Your task to perform on an android device: add a label to a message in the gmail app Image 0: 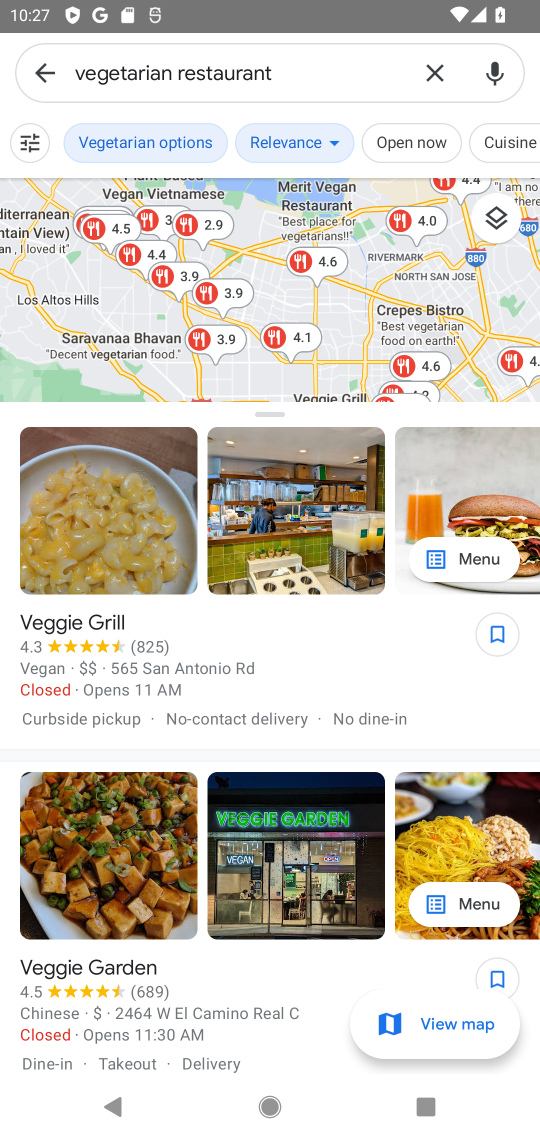
Step 0: press home button
Your task to perform on an android device: add a label to a message in the gmail app Image 1: 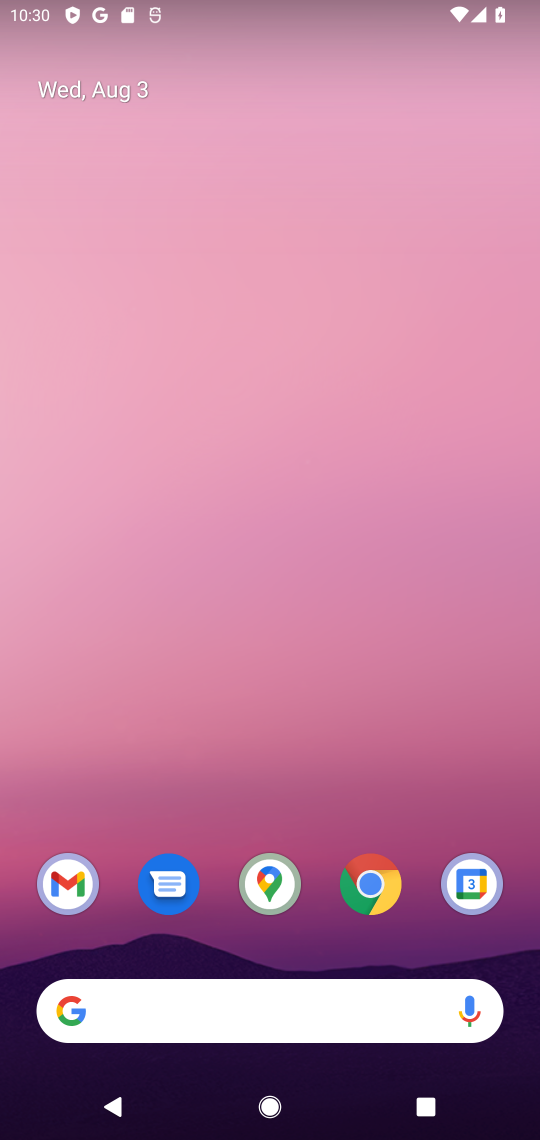
Step 1: click (58, 887)
Your task to perform on an android device: add a label to a message in the gmail app Image 2: 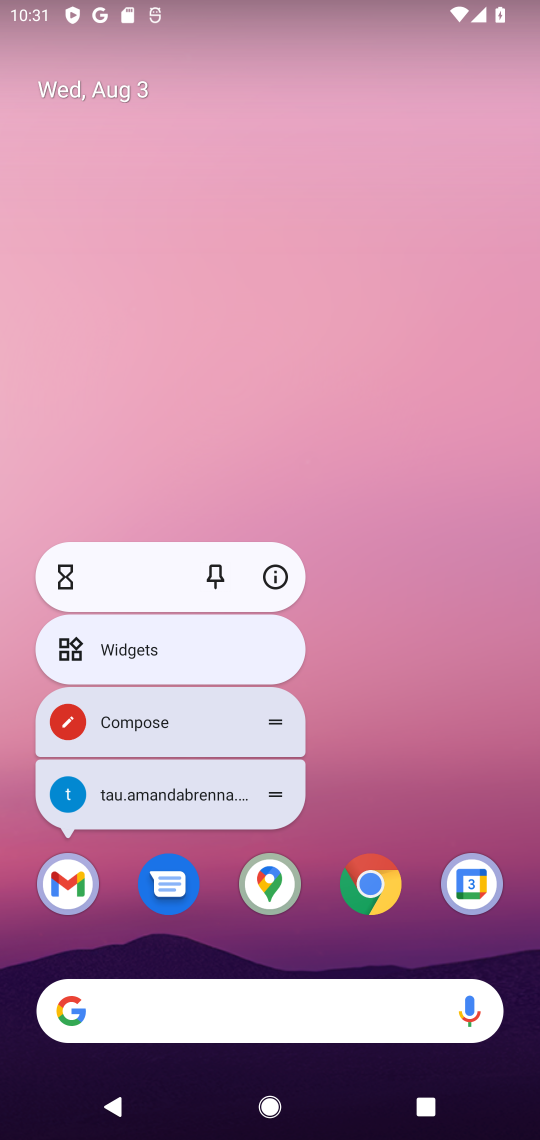
Step 2: click (40, 875)
Your task to perform on an android device: add a label to a message in the gmail app Image 3: 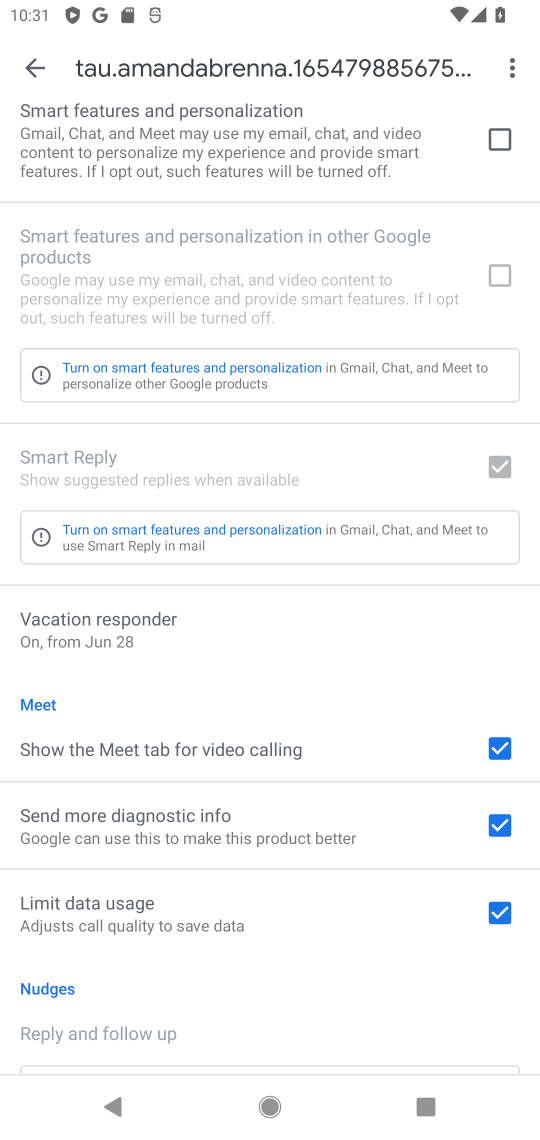
Step 3: click (43, 71)
Your task to perform on an android device: add a label to a message in the gmail app Image 4: 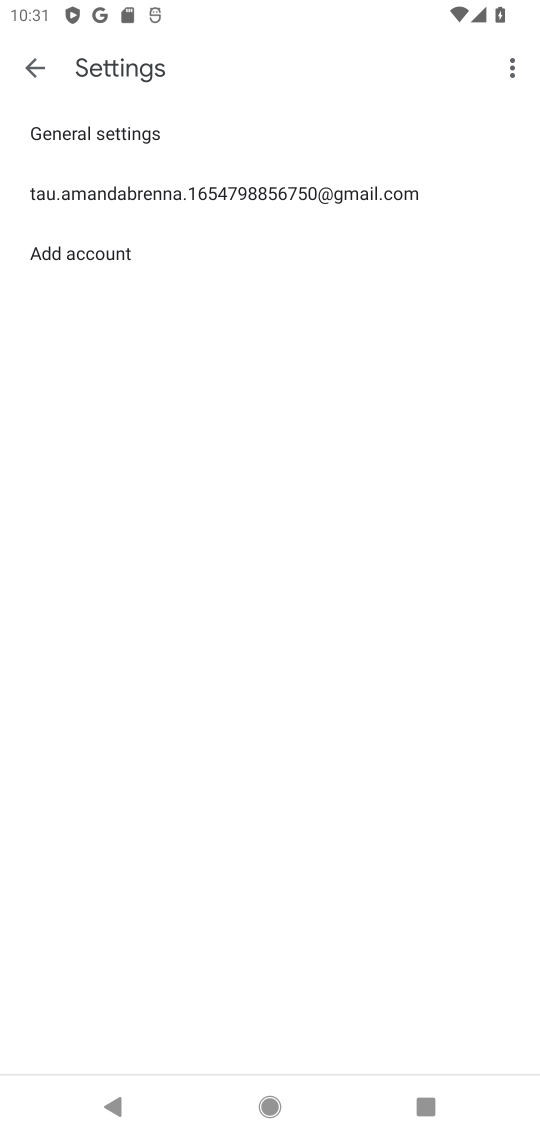
Step 4: click (34, 64)
Your task to perform on an android device: add a label to a message in the gmail app Image 5: 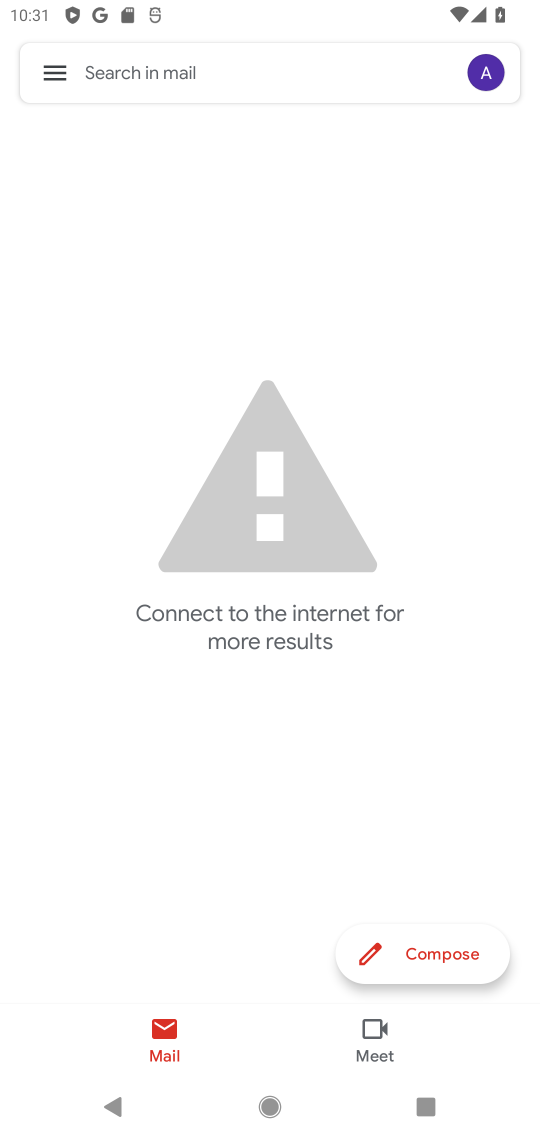
Step 5: click (49, 79)
Your task to perform on an android device: add a label to a message in the gmail app Image 6: 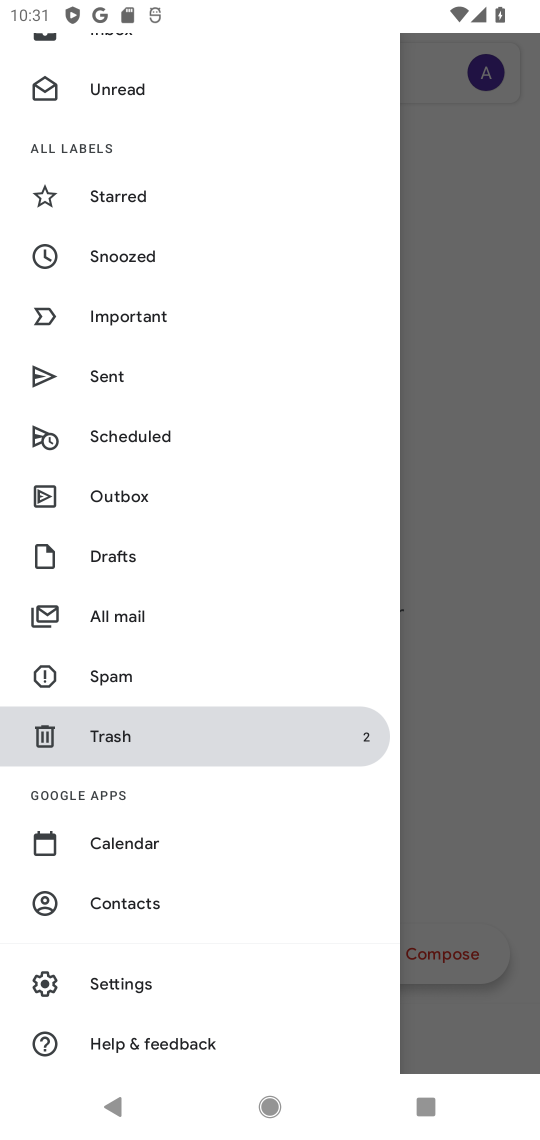
Step 6: click (98, 614)
Your task to perform on an android device: add a label to a message in the gmail app Image 7: 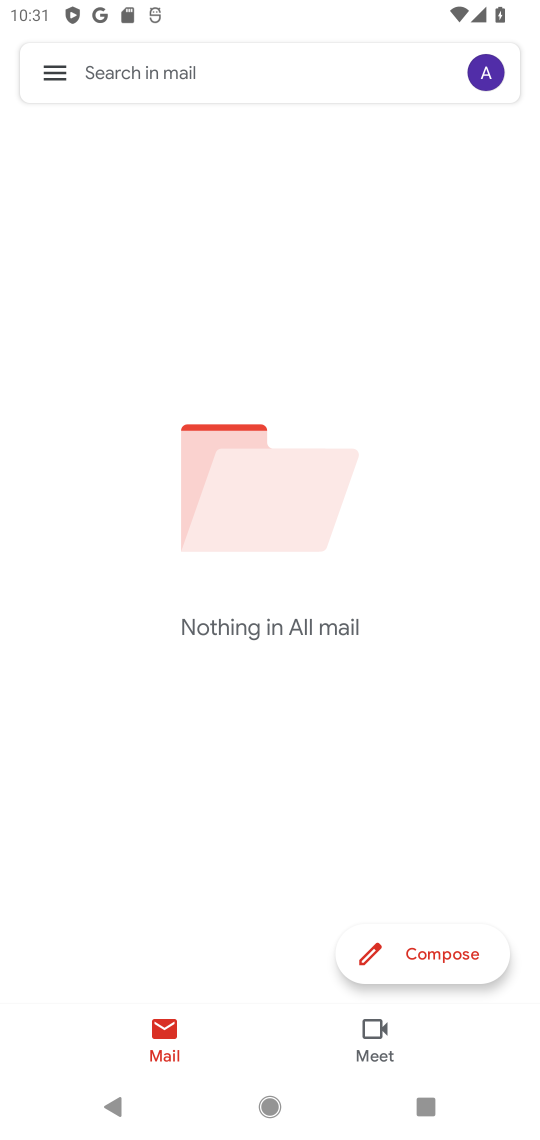
Step 7: click (46, 70)
Your task to perform on an android device: add a label to a message in the gmail app Image 8: 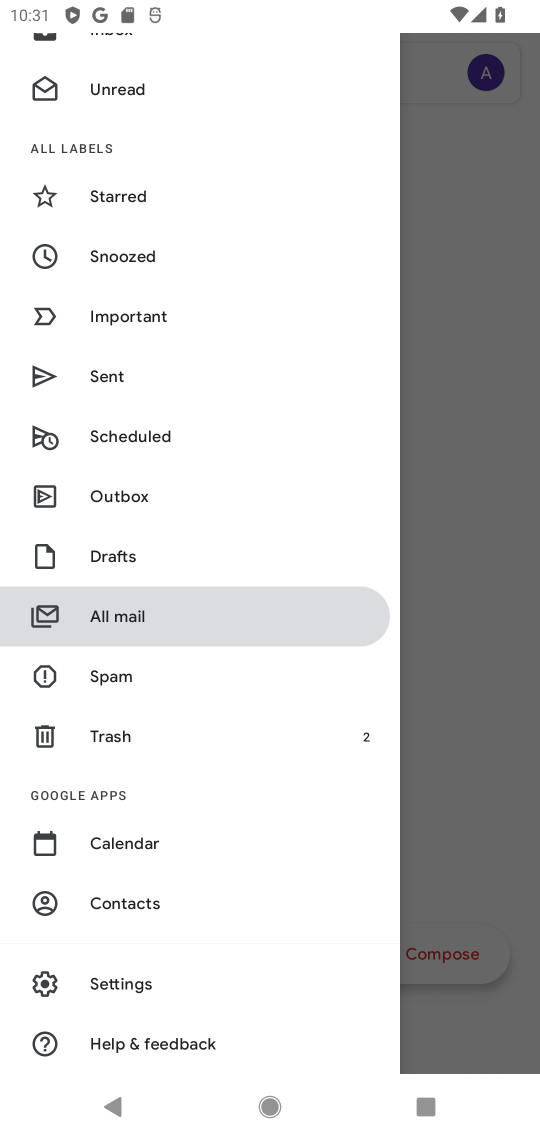
Step 8: task complete